Your task to perform on an android device: delete browsing data in the chrome app Image 0: 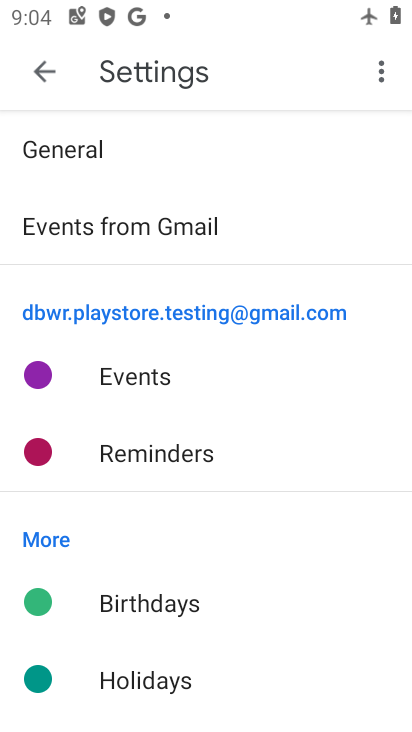
Step 0: press home button
Your task to perform on an android device: delete browsing data in the chrome app Image 1: 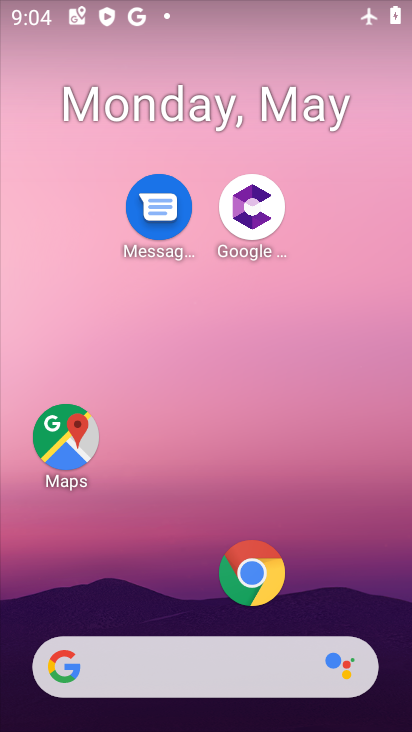
Step 1: click (240, 580)
Your task to perform on an android device: delete browsing data in the chrome app Image 2: 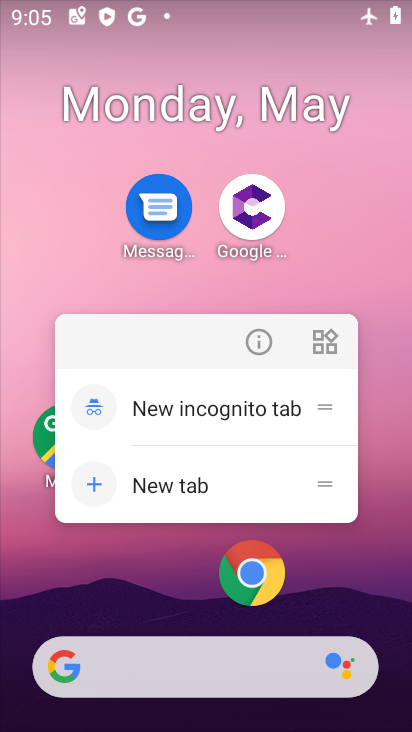
Step 2: click (238, 573)
Your task to perform on an android device: delete browsing data in the chrome app Image 3: 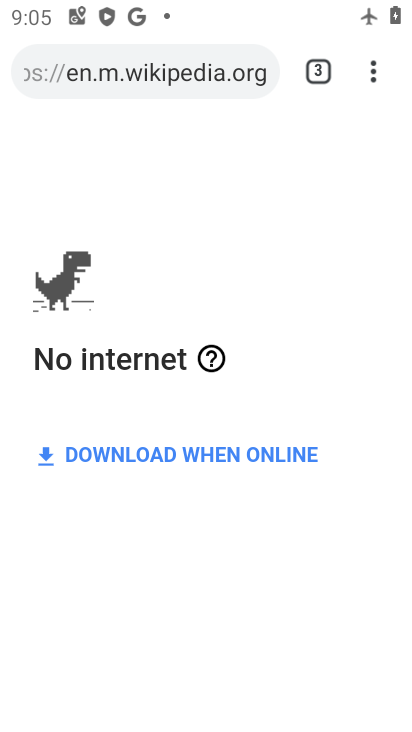
Step 3: click (379, 83)
Your task to perform on an android device: delete browsing data in the chrome app Image 4: 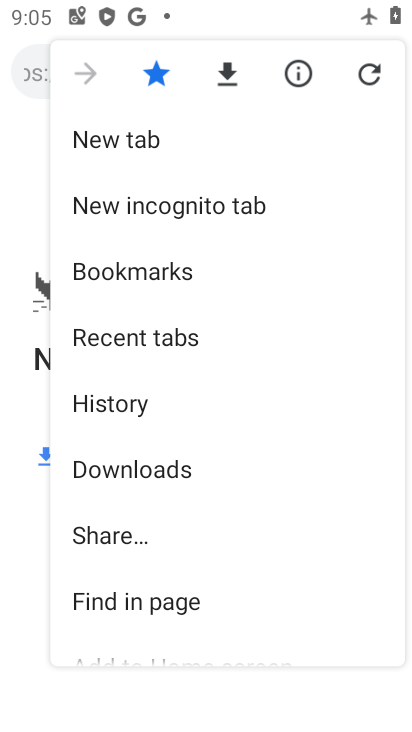
Step 4: click (144, 413)
Your task to perform on an android device: delete browsing data in the chrome app Image 5: 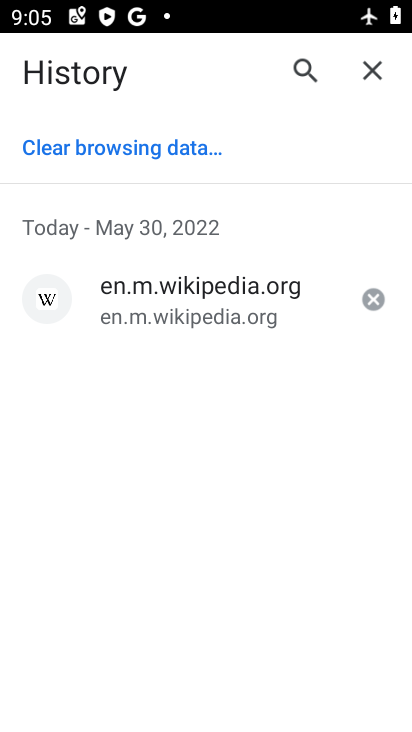
Step 5: click (149, 150)
Your task to perform on an android device: delete browsing data in the chrome app Image 6: 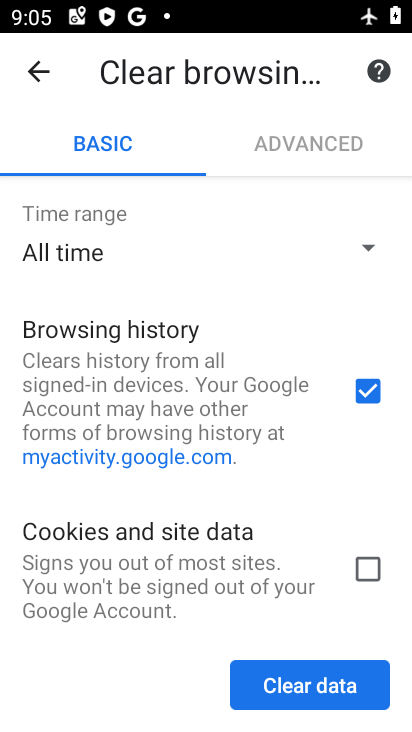
Step 6: click (341, 683)
Your task to perform on an android device: delete browsing data in the chrome app Image 7: 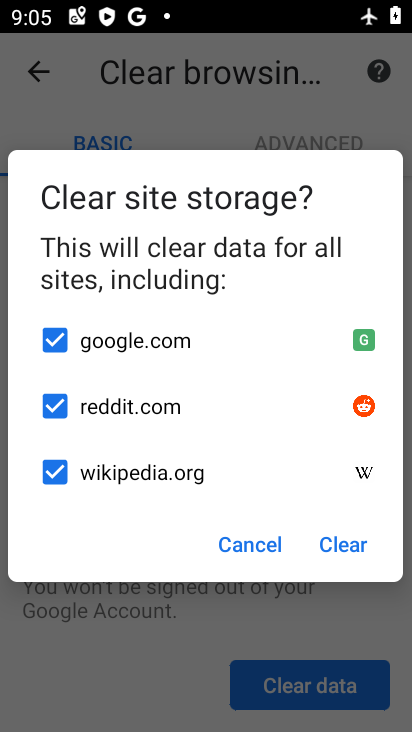
Step 7: click (366, 545)
Your task to perform on an android device: delete browsing data in the chrome app Image 8: 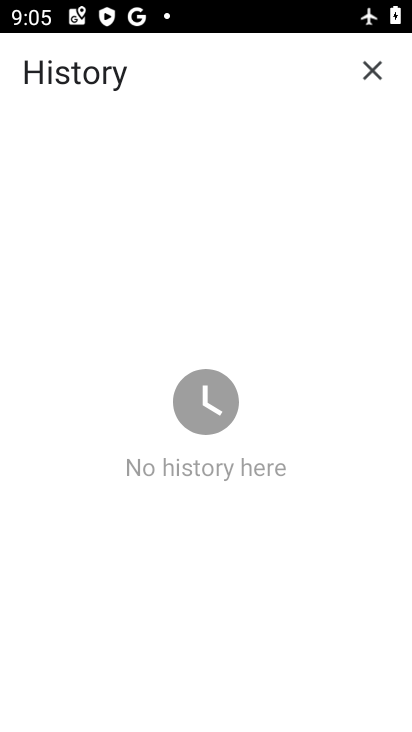
Step 8: task complete